Your task to perform on an android device: open app "Gmail" (install if not already installed) Image 0: 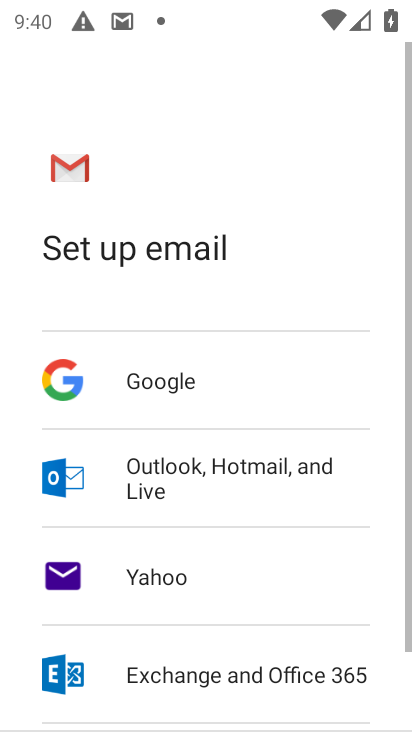
Step 0: press home button
Your task to perform on an android device: open app "Gmail" (install if not already installed) Image 1: 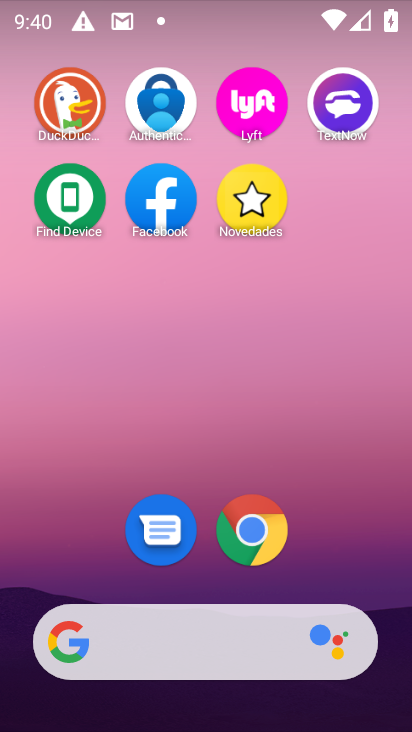
Step 1: drag from (121, 695) to (384, 12)
Your task to perform on an android device: open app "Gmail" (install if not already installed) Image 2: 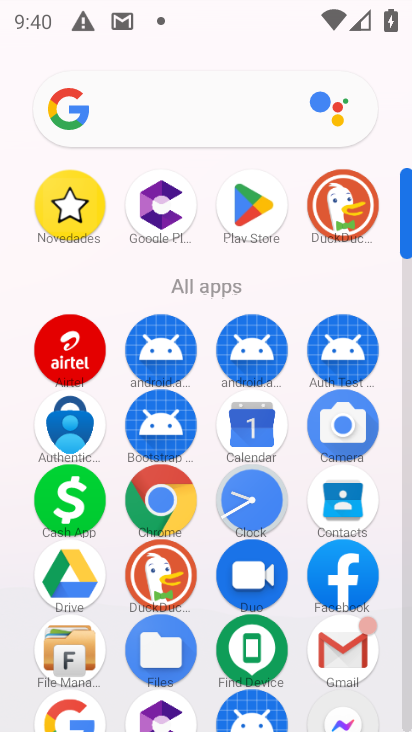
Step 2: click (256, 192)
Your task to perform on an android device: open app "Gmail" (install if not already installed) Image 3: 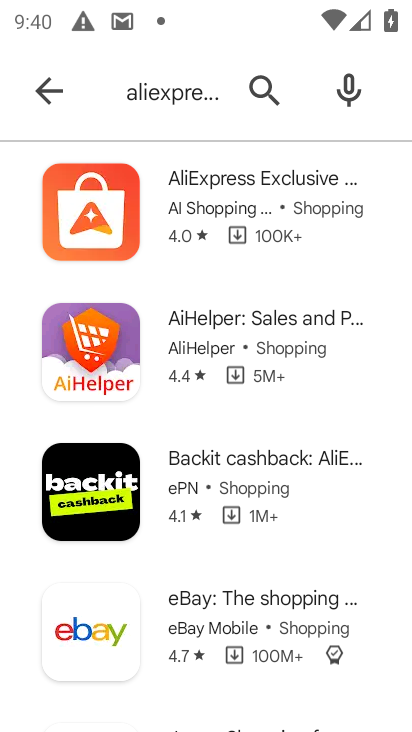
Step 3: click (265, 88)
Your task to perform on an android device: open app "Gmail" (install if not already installed) Image 4: 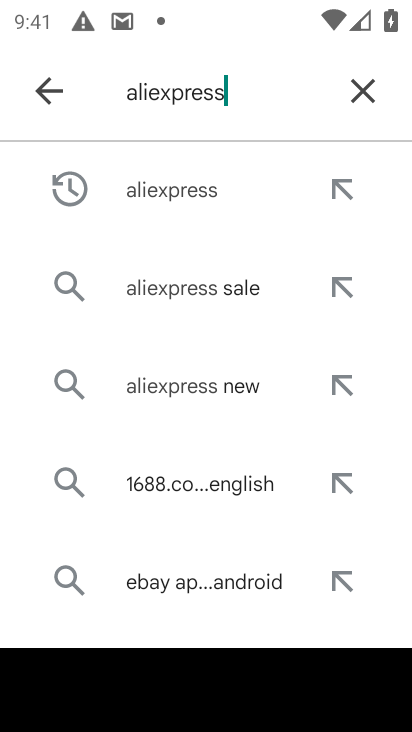
Step 4: click (367, 91)
Your task to perform on an android device: open app "Gmail" (install if not already installed) Image 5: 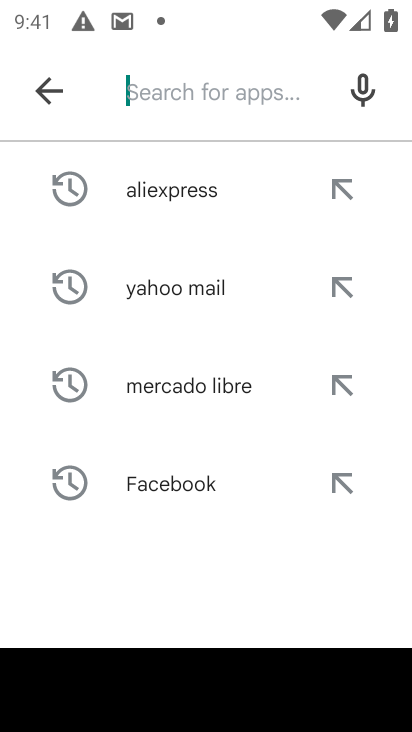
Step 5: type "gmail"
Your task to perform on an android device: open app "Gmail" (install if not already installed) Image 6: 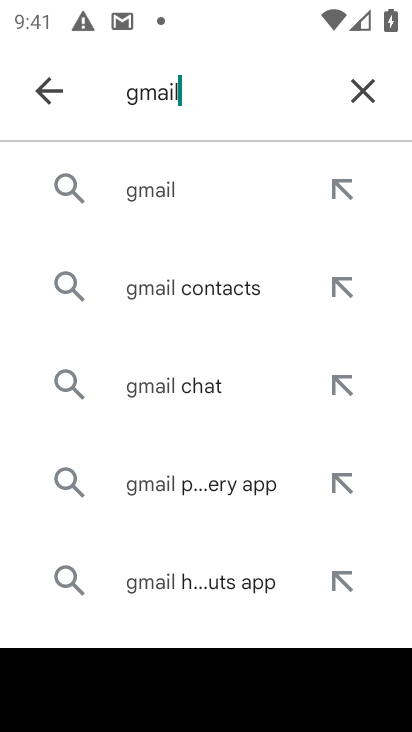
Step 6: click (192, 183)
Your task to perform on an android device: open app "Gmail" (install if not already installed) Image 7: 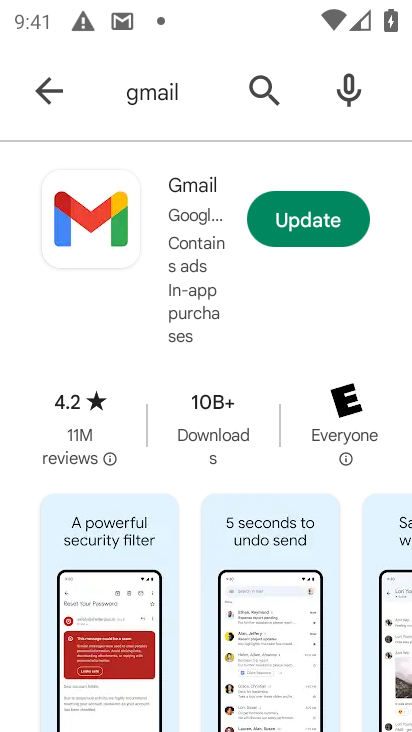
Step 7: click (338, 225)
Your task to perform on an android device: open app "Gmail" (install if not already installed) Image 8: 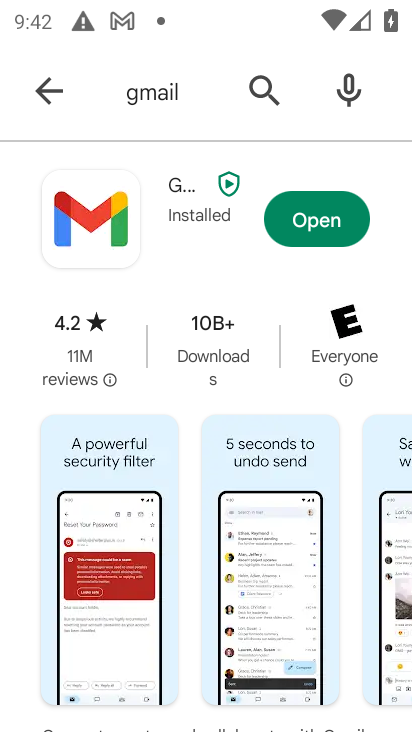
Step 8: click (323, 223)
Your task to perform on an android device: open app "Gmail" (install if not already installed) Image 9: 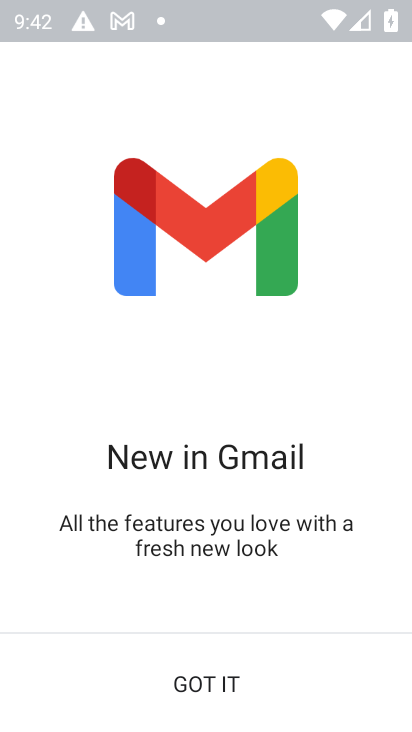
Step 9: task complete